Your task to perform on an android device: open app "Messages" (install if not already installed), go to login, and select forgot password Image 0: 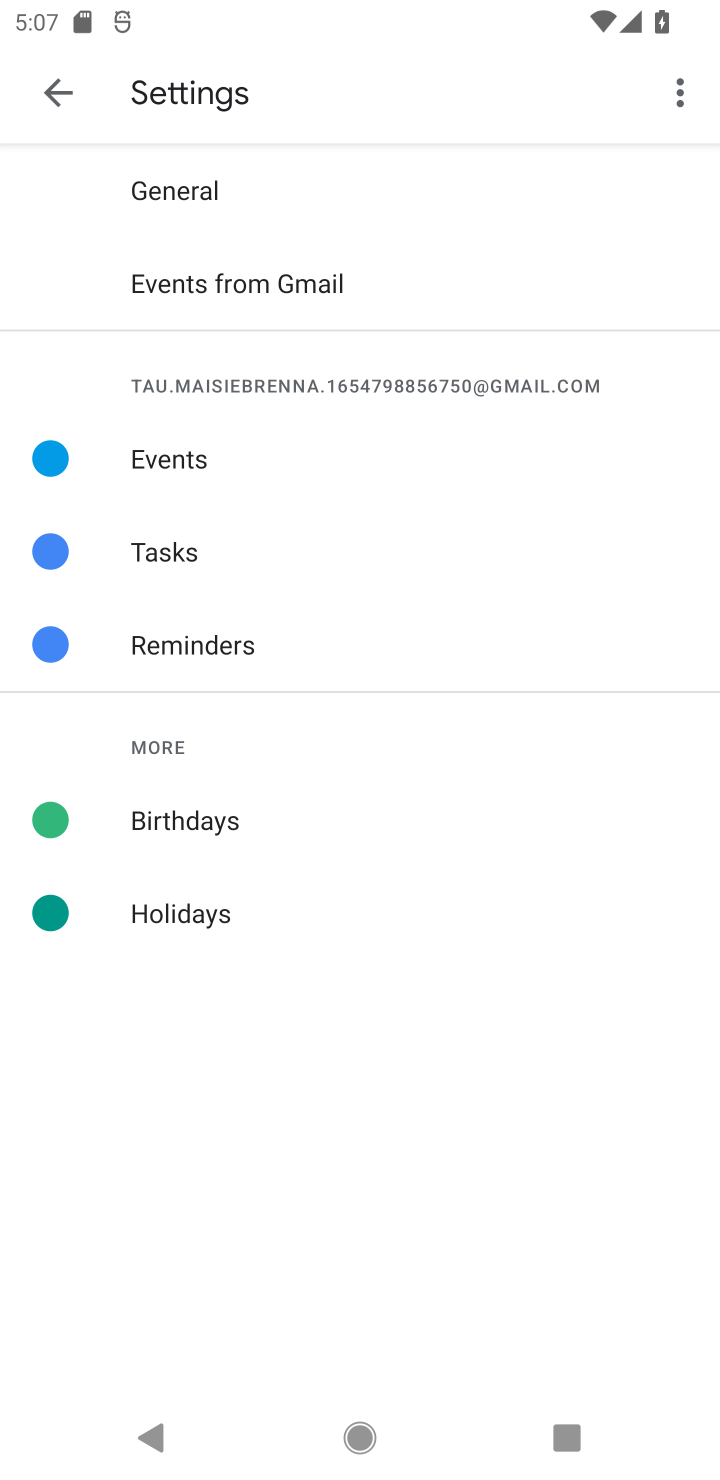
Step 0: press home button
Your task to perform on an android device: open app "Messages" (install if not already installed), go to login, and select forgot password Image 1: 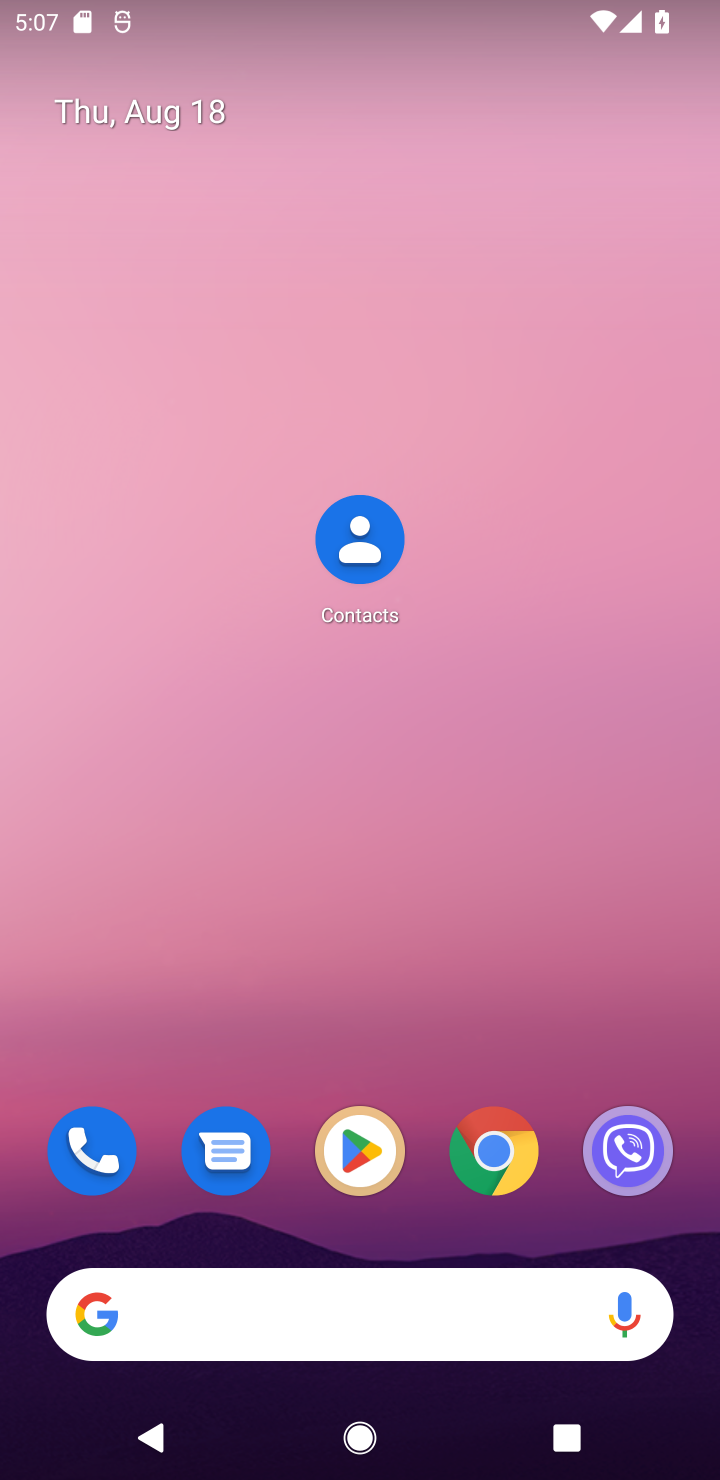
Step 1: click (366, 1153)
Your task to perform on an android device: open app "Messages" (install if not already installed), go to login, and select forgot password Image 2: 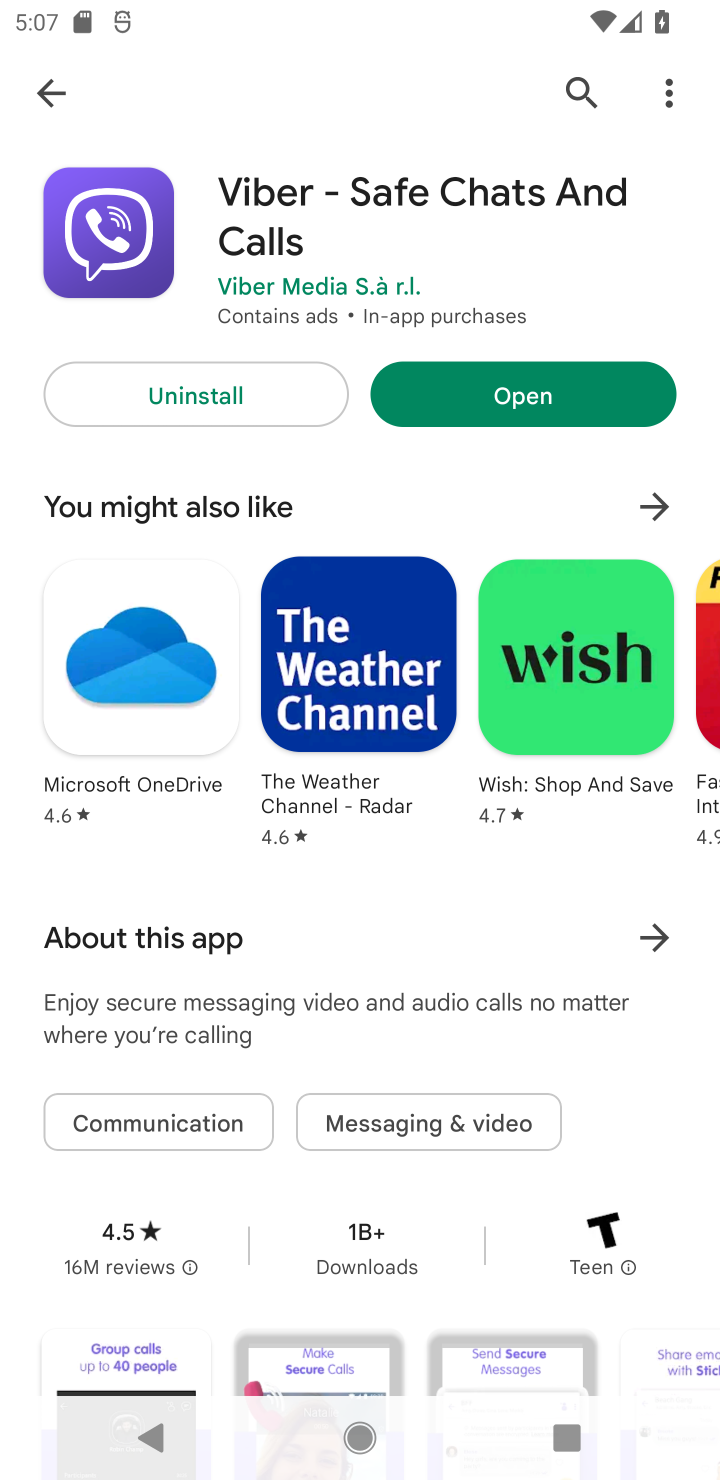
Step 2: click (605, 97)
Your task to perform on an android device: open app "Messages" (install if not already installed), go to login, and select forgot password Image 3: 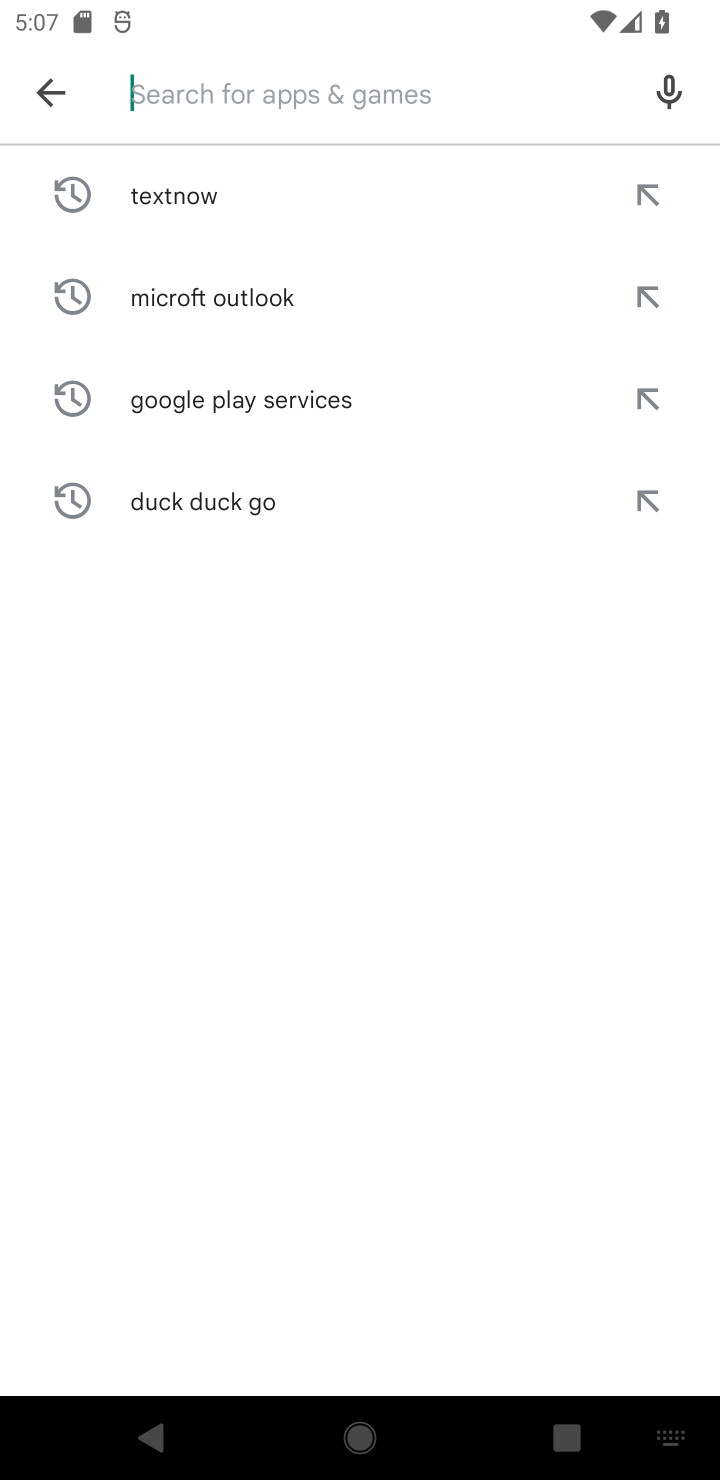
Step 3: click (667, 101)
Your task to perform on an android device: open app "Messages" (install if not already installed), go to login, and select forgot password Image 4: 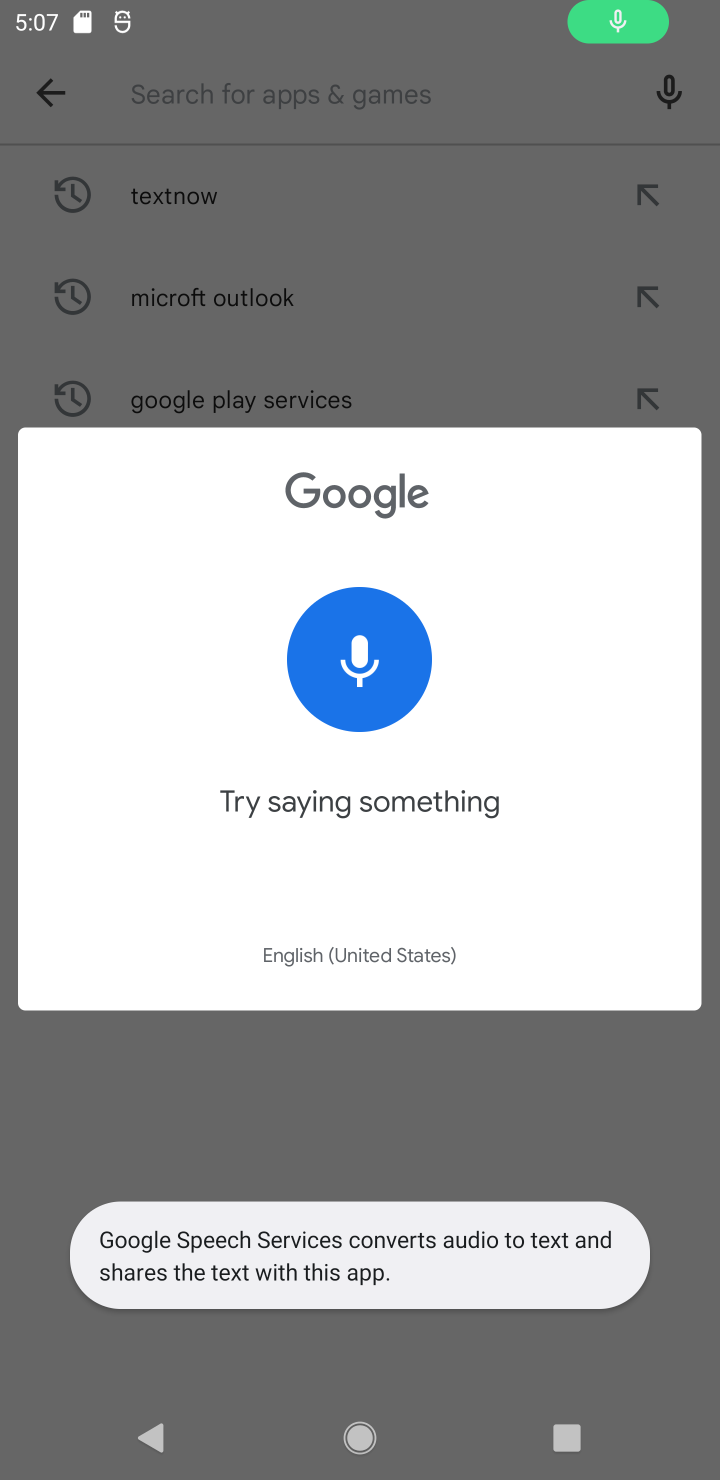
Step 4: click (303, 1112)
Your task to perform on an android device: open app "Messages" (install if not already installed), go to login, and select forgot password Image 5: 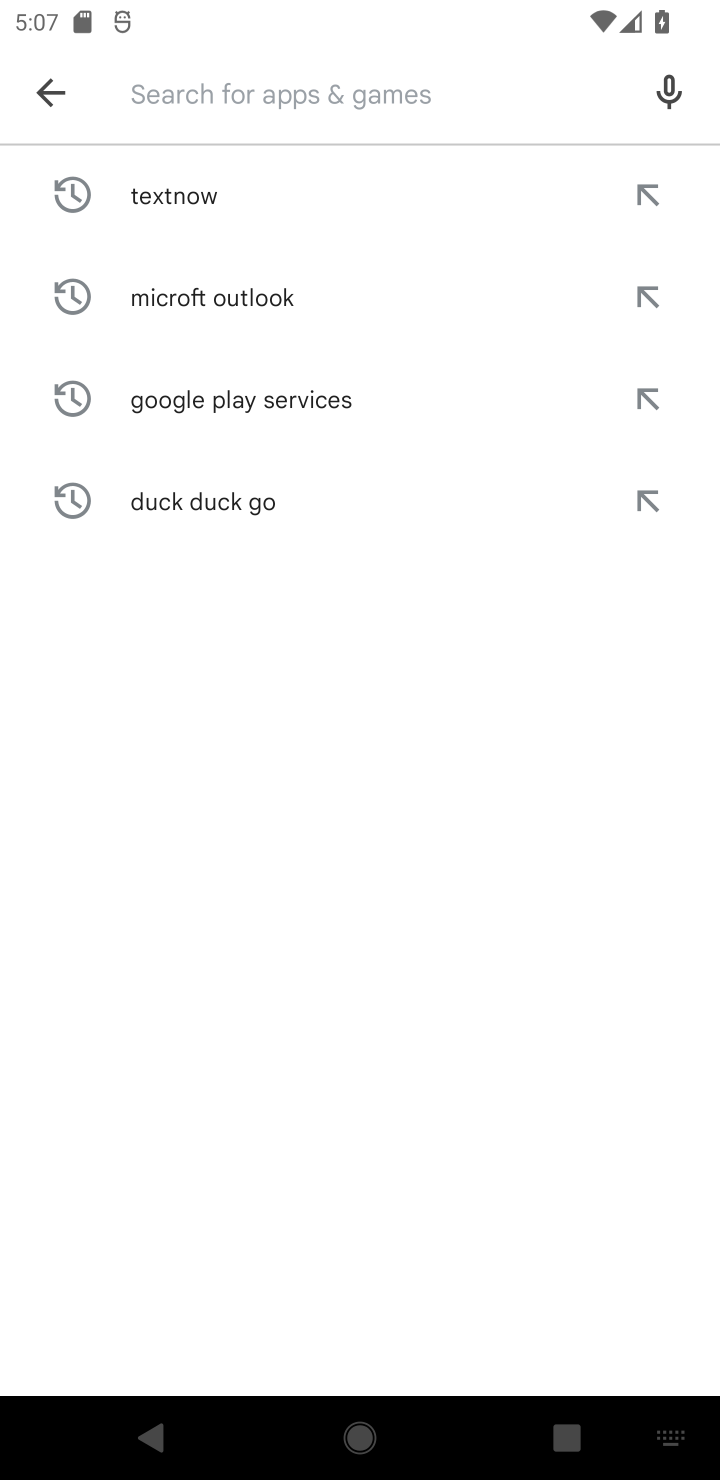
Step 5: click (276, 95)
Your task to perform on an android device: open app "Messages" (install if not already installed), go to login, and select forgot password Image 6: 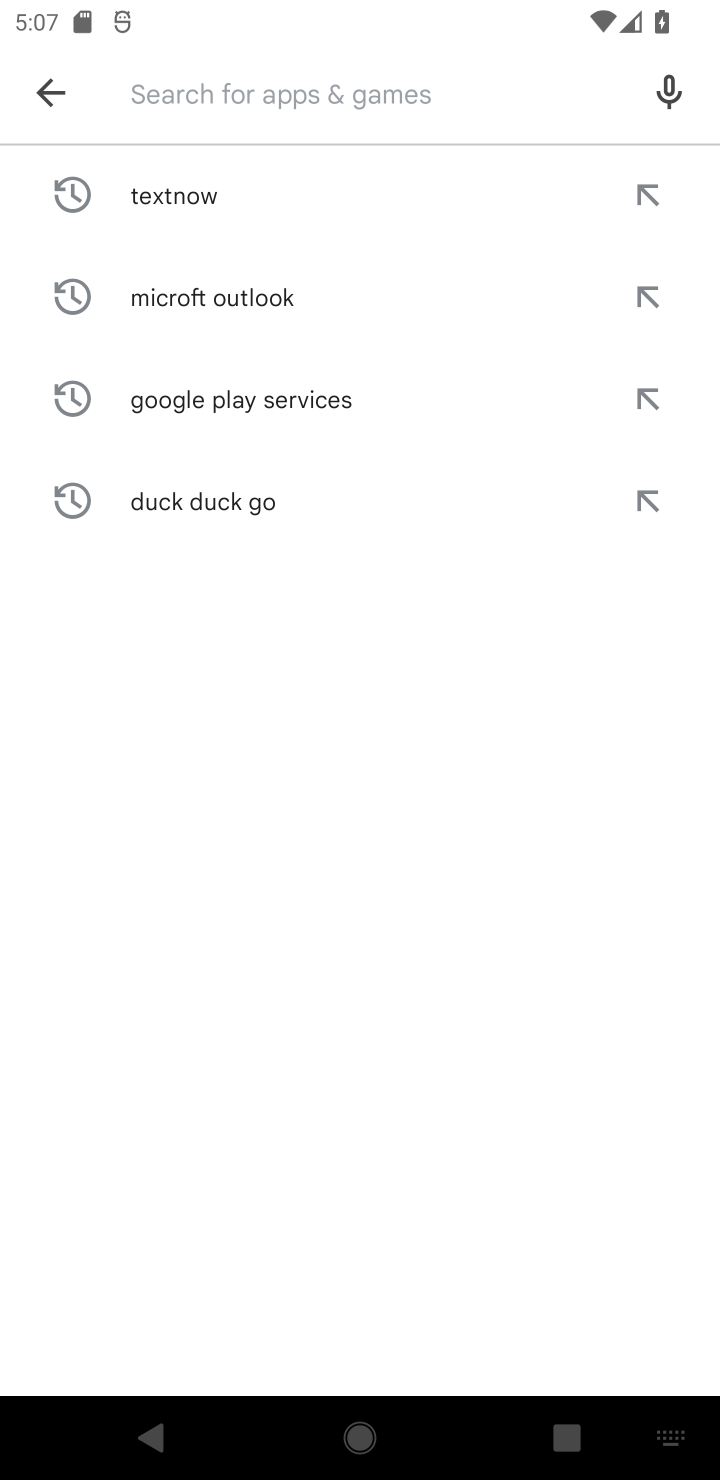
Step 6: type "message"
Your task to perform on an android device: open app "Messages" (install if not already installed), go to login, and select forgot password Image 7: 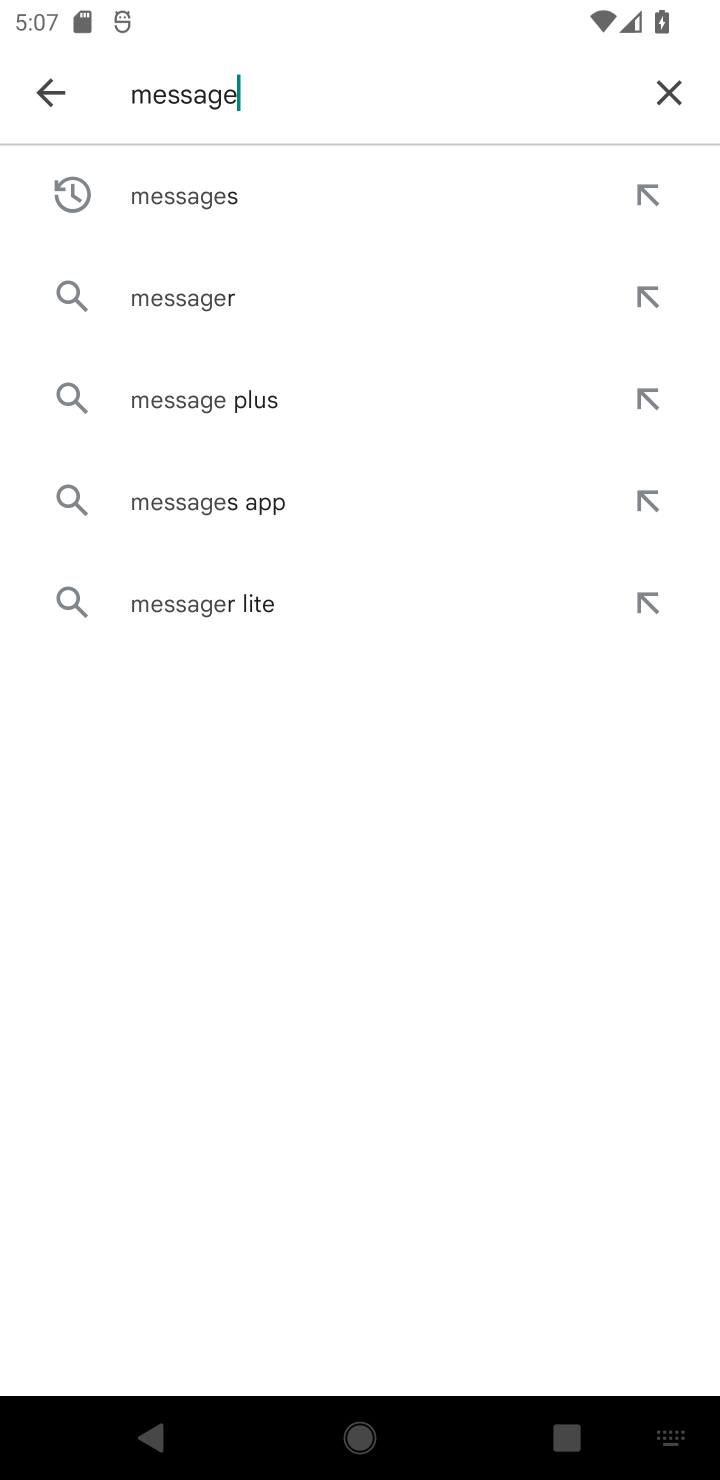
Step 7: click (205, 182)
Your task to perform on an android device: open app "Messages" (install if not already installed), go to login, and select forgot password Image 8: 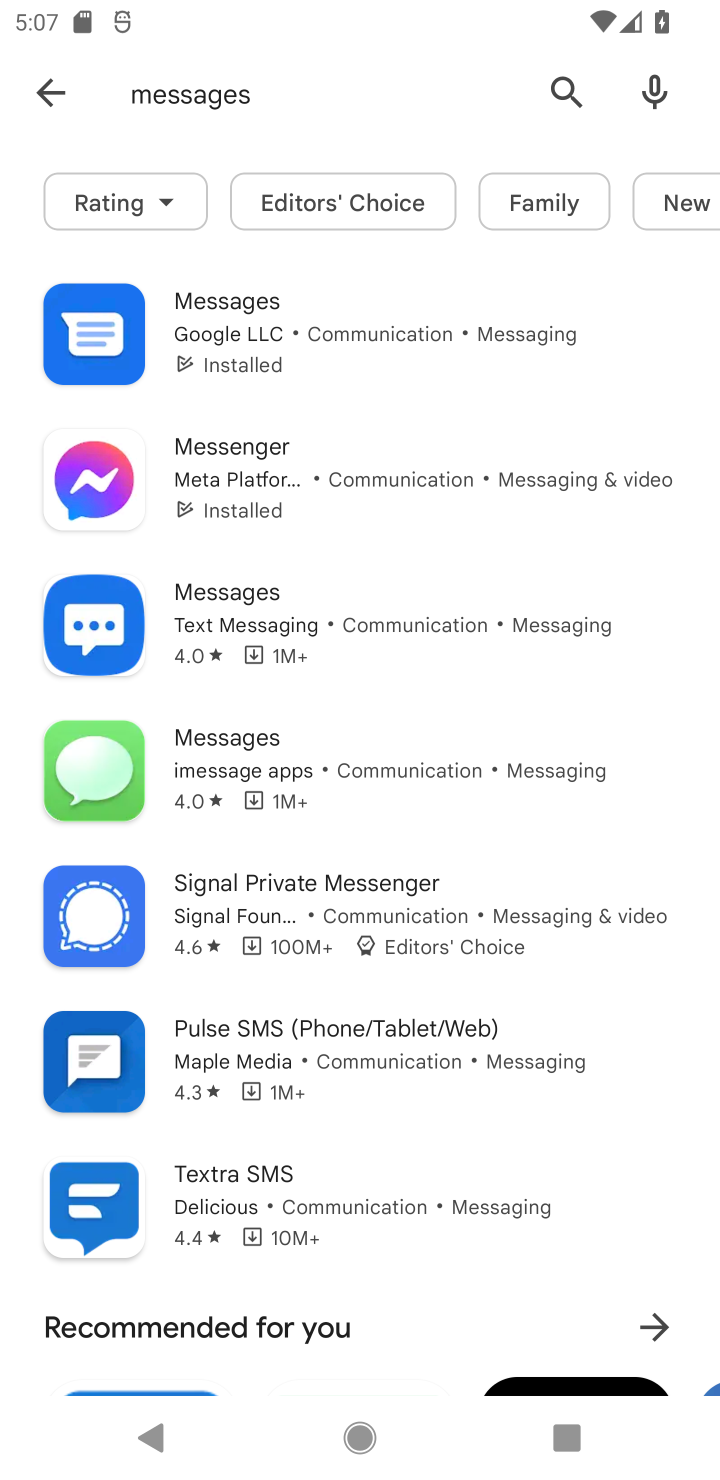
Step 8: click (424, 325)
Your task to perform on an android device: open app "Messages" (install if not already installed), go to login, and select forgot password Image 9: 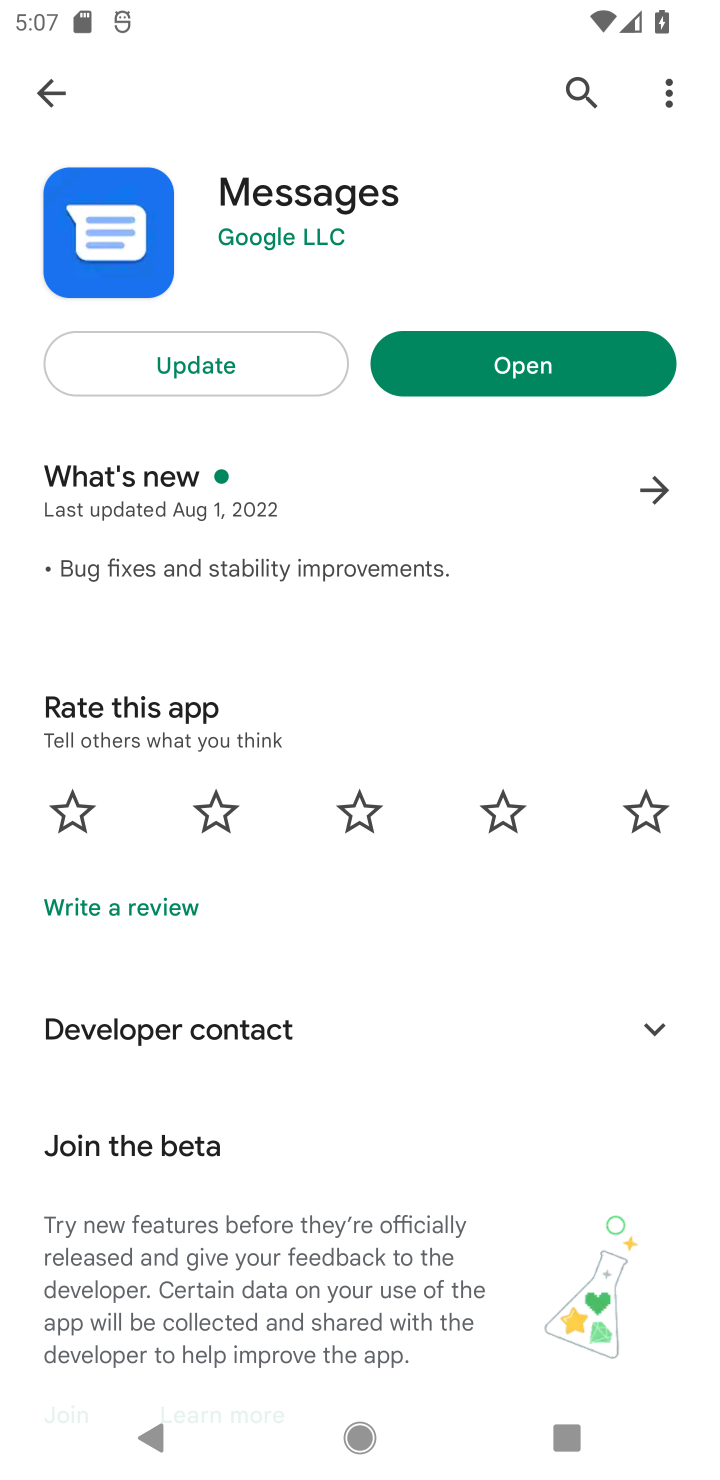
Step 9: click (515, 355)
Your task to perform on an android device: open app "Messages" (install if not already installed), go to login, and select forgot password Image 10: 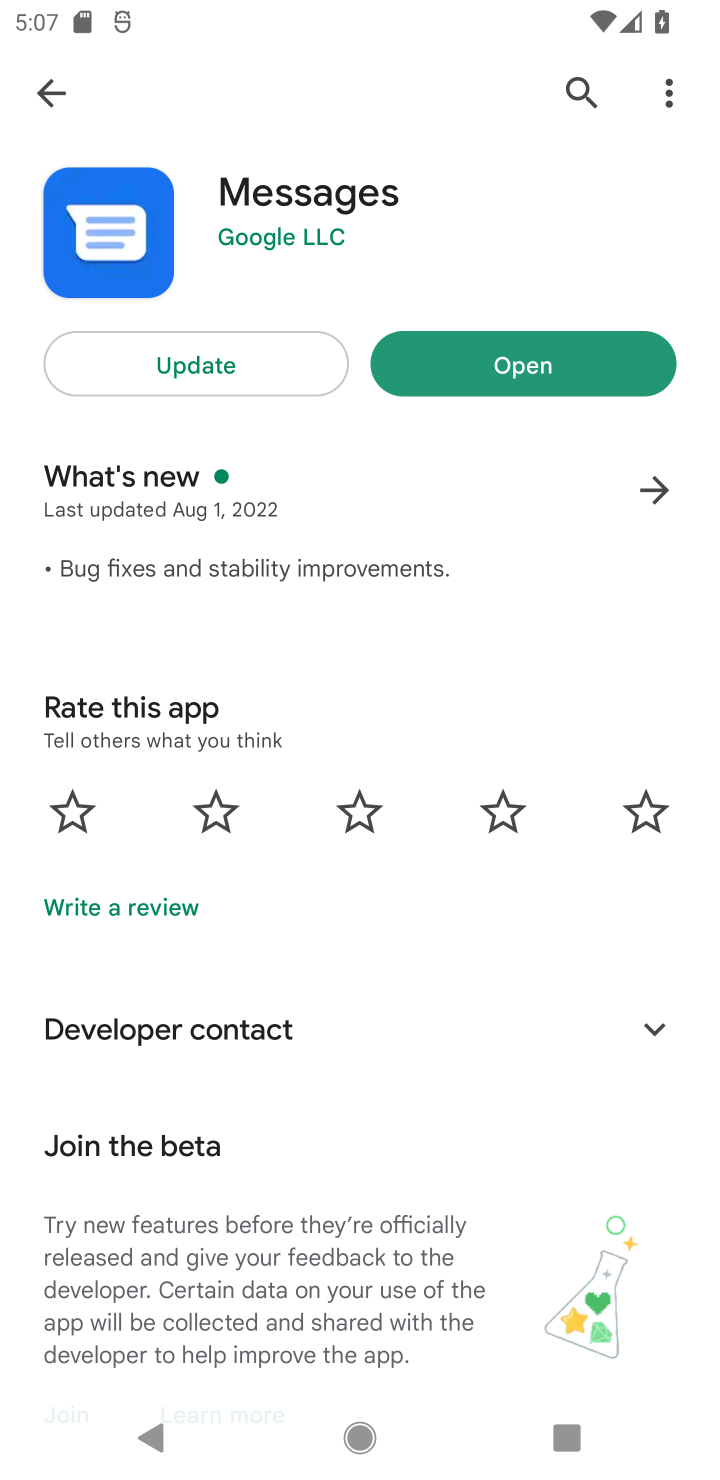
Step 10: task complete